Your task to perform on an android device: stop showing notifications on the lock screen Image 0: 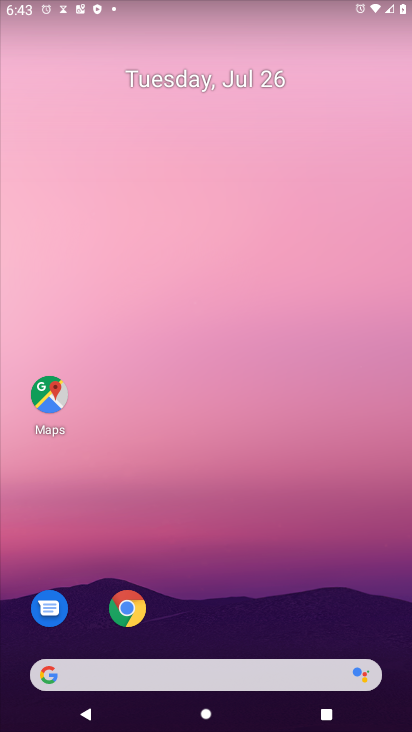
Step 0: press home button
Your task to perform on an android device: stop showing notifications on the lock screen Image 1: 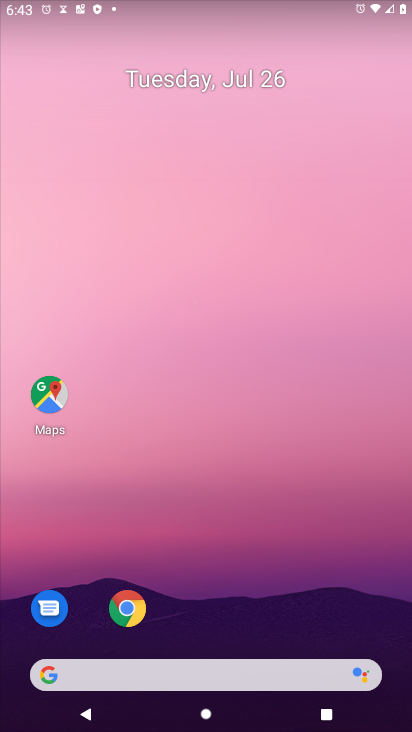
Step 1: drag from (215, 639) to (211, 128)
Your task to perform on an android device: stop showing notifications on the lock screen Image 2: 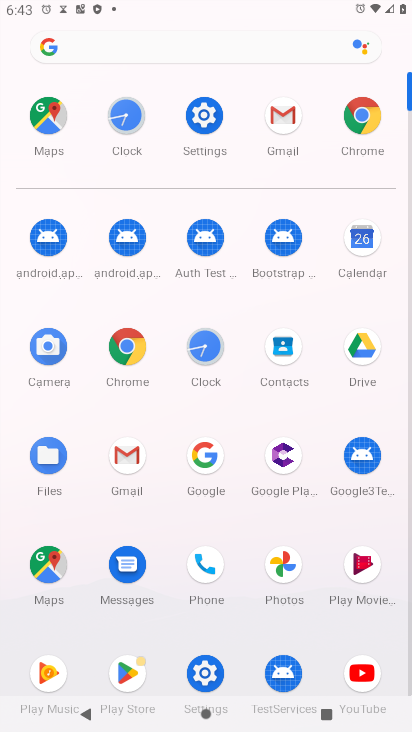
Step 2: click (206, 116)
Your task to perform on an android device: stop showing notifications on the lock screen Image 3: 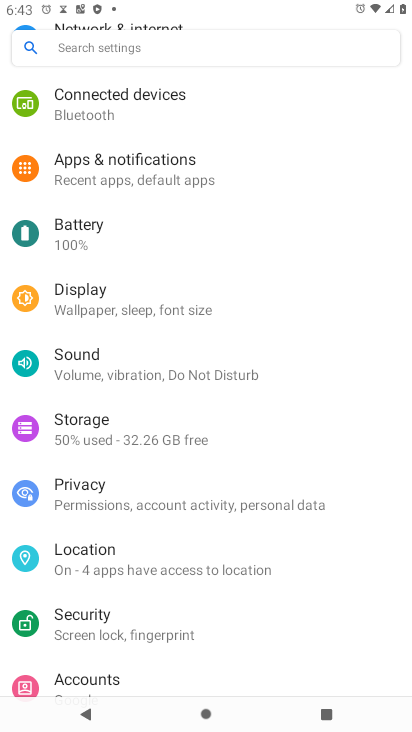
Step 3: click (108, 173)
Your task to perform on an android device: stop showing notifications on the lock screen Image 4: 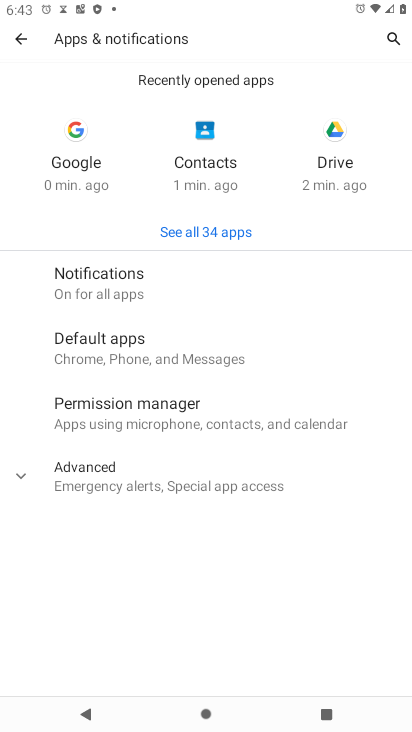
Step 4: click (93, 284)
Your task to perform on an android device: stop showing notifications on the lock screen Image 5: 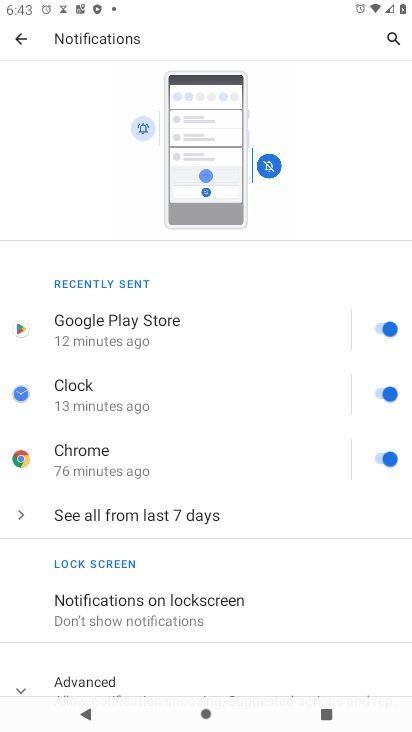
Step 5: click (150, 614)
Your task to perform on an android device: stop showing notifications on the lock screen Image 6: 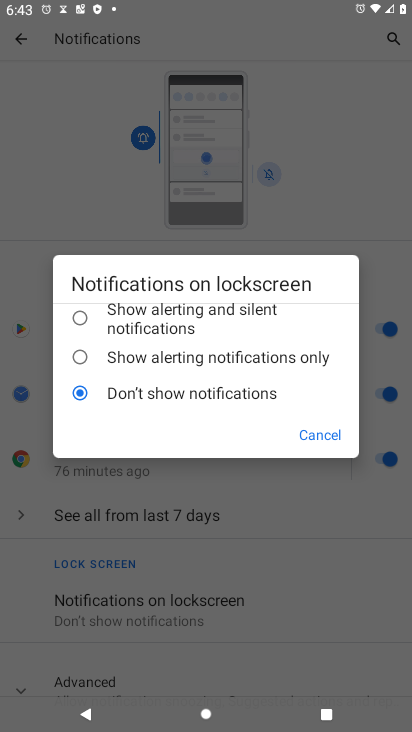
Step 6: task complete